Your task to perform on an android device: Go to sound settings Image 0: 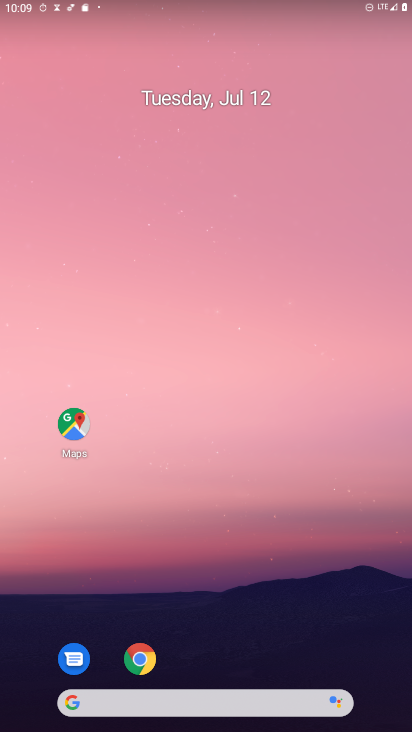
Step 0: drag from (175, 694) to (266, 59)
Your task to perform on an android device: Go to sound settings Image 1: 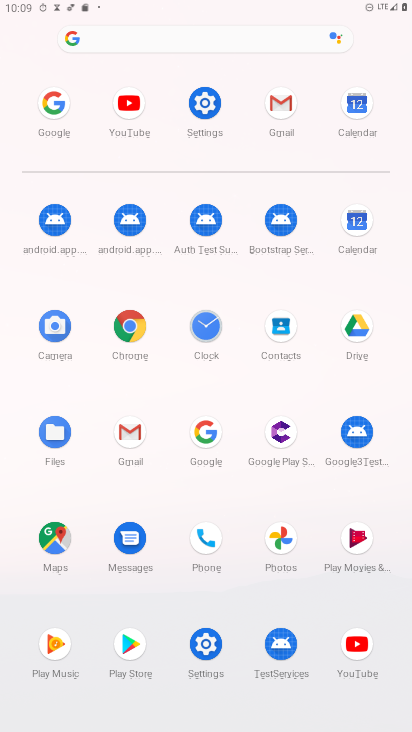
Step 1: click (204, 101)
Your task to perform on an android device: Go to sound settings Image 2: 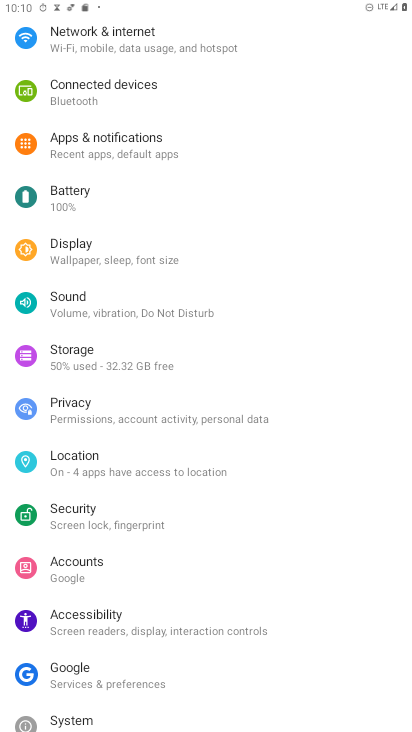
Step 2: click (119, 310)
Your task to perform on an android device: Go to sound settings Image 3: 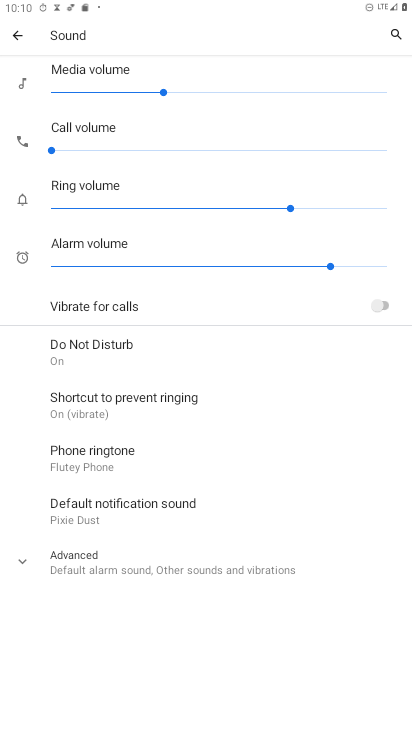
Step 3: task complete